Your task to perform on an android device: Go to CNN.com Image 0: 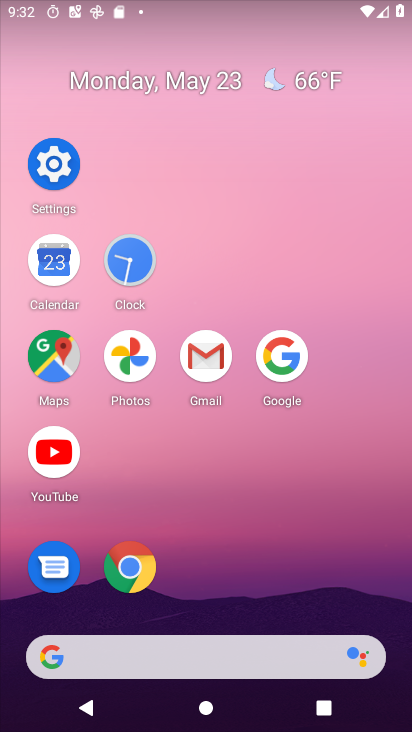
Step 0: click (147, 576)
Your task to perform on an android device: Go to CNN.com Image 1: 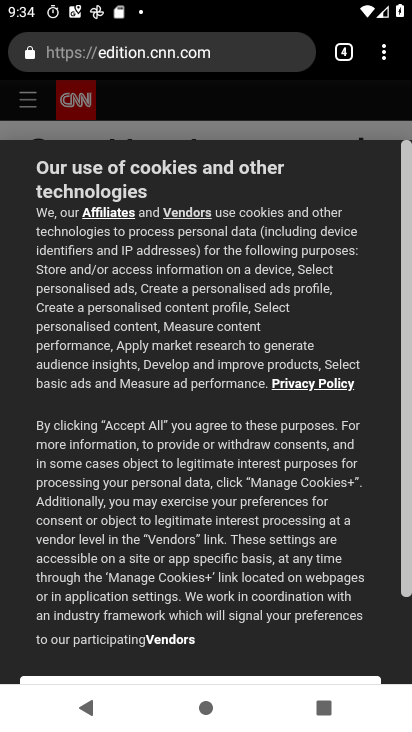
Step 1: task complete